Your task to perform on an android device: What is the recent news? Image 0: 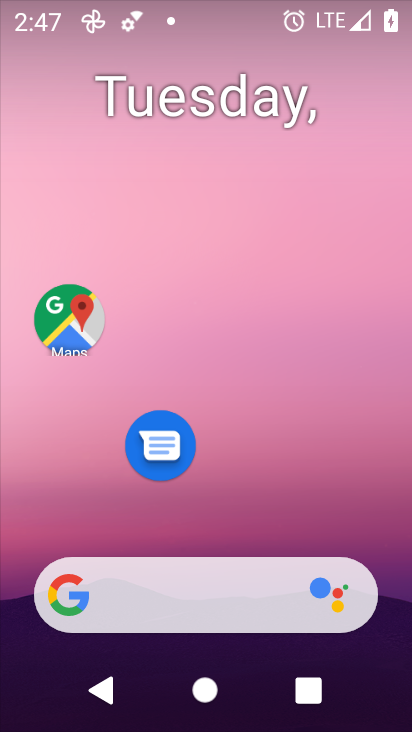
Step 0: drag from (4, 193) to (398, 200)
Your task to perform on an android device: What is the recent news? Image 1: 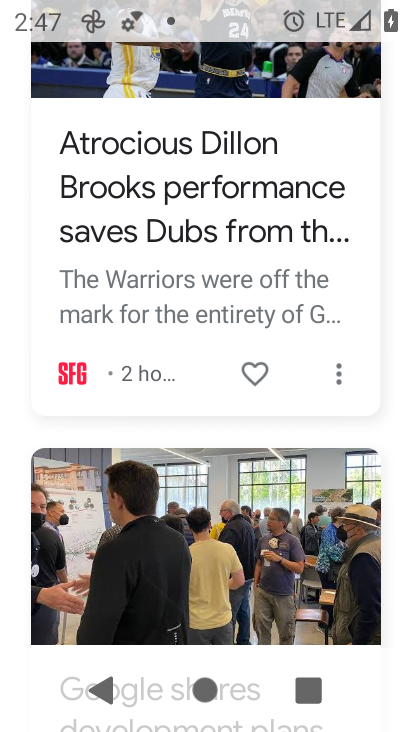
Step 1: task complete